Your task to perform on an android device: add a contact Image 0: 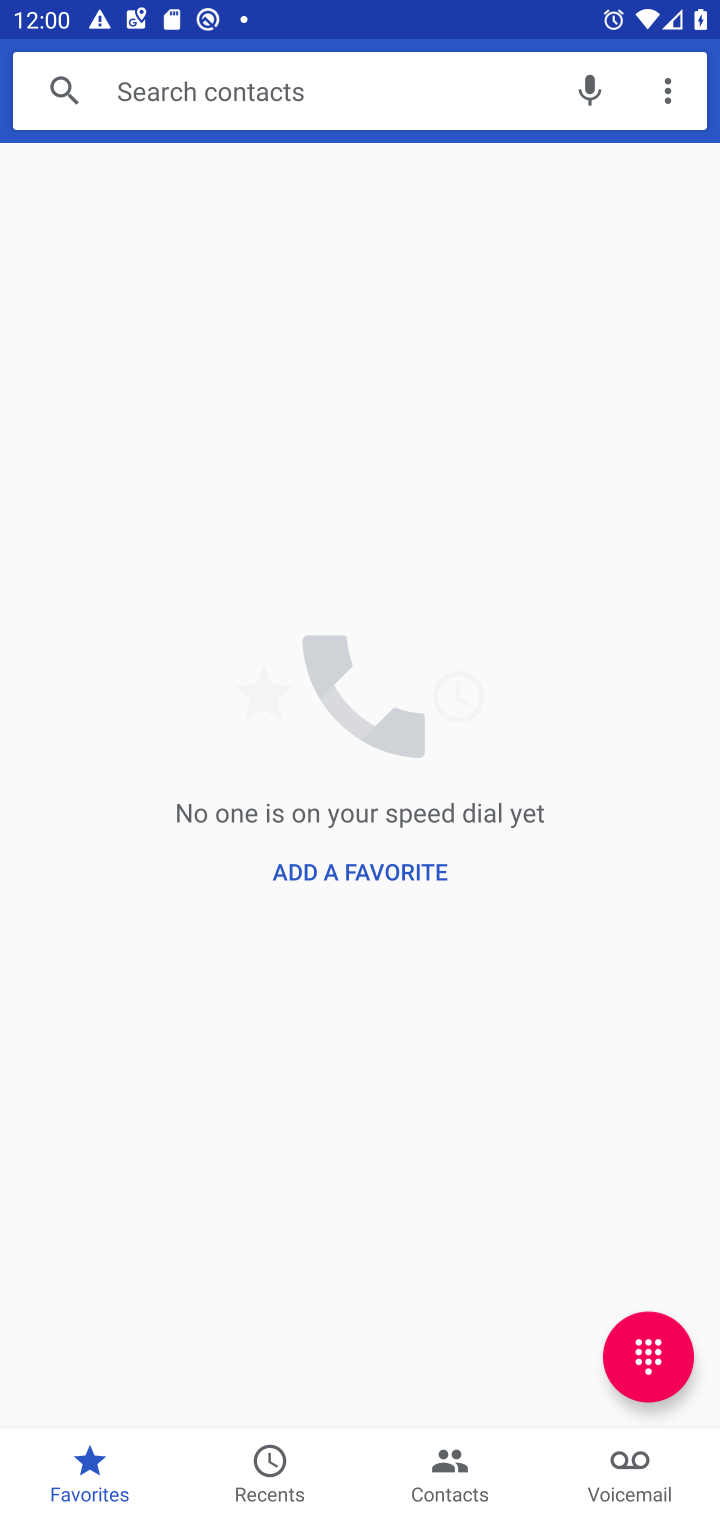
Step 0: press home button
Your task to perform on an android device: add a contact Image 1: 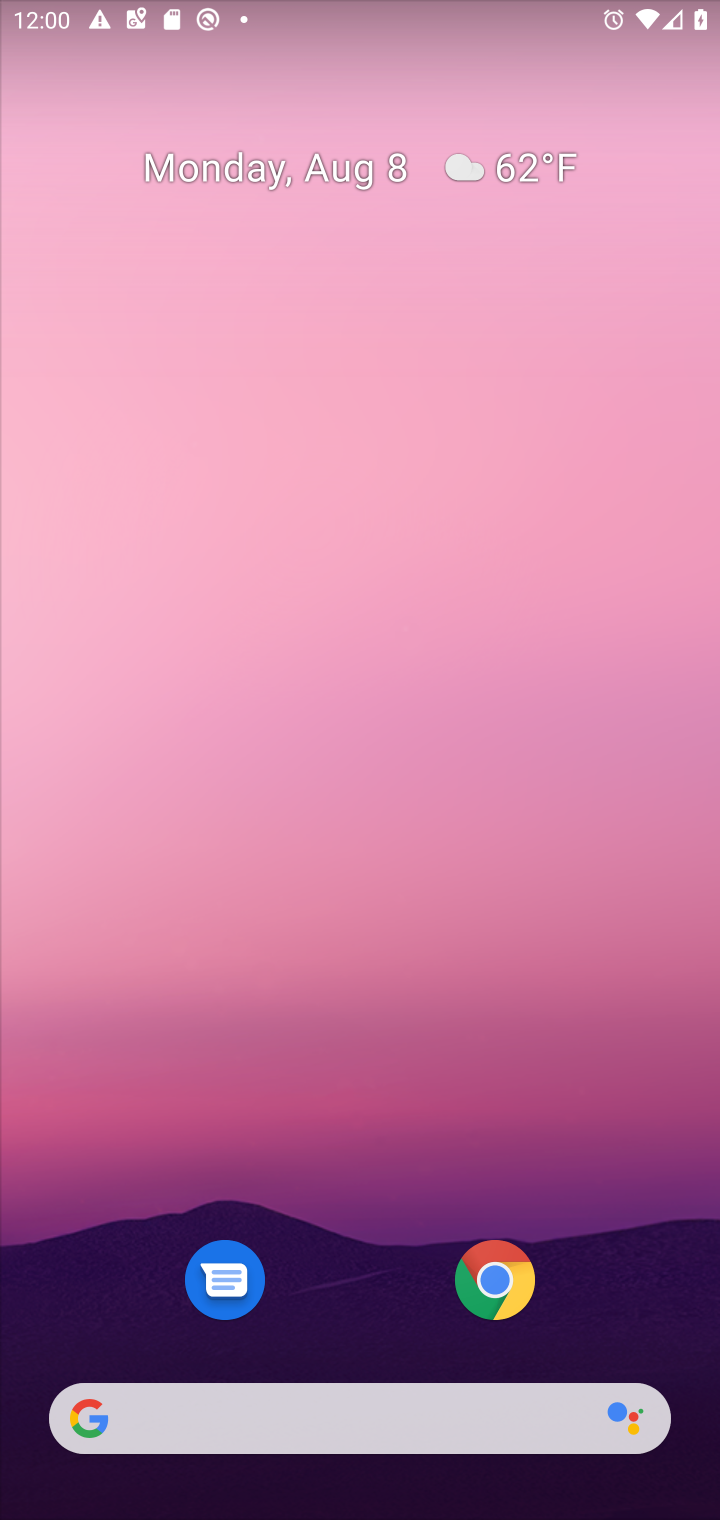
Step 1: drag from (310, 1031) to (290, 135)
Your task to perform on an android device: add a contact Image 2: 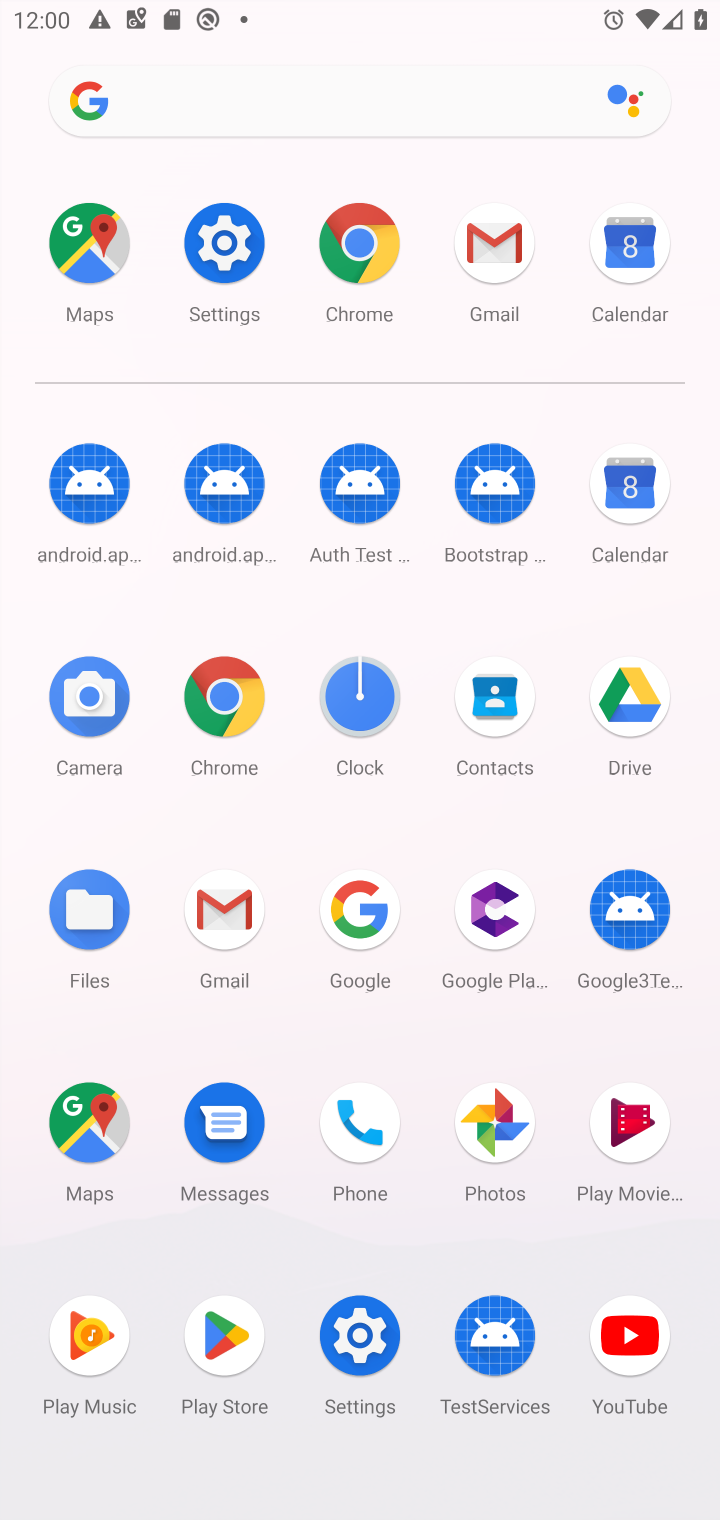
Step 2: click (487, 707)
Your task to perform on an android device: add a contact Image 3: 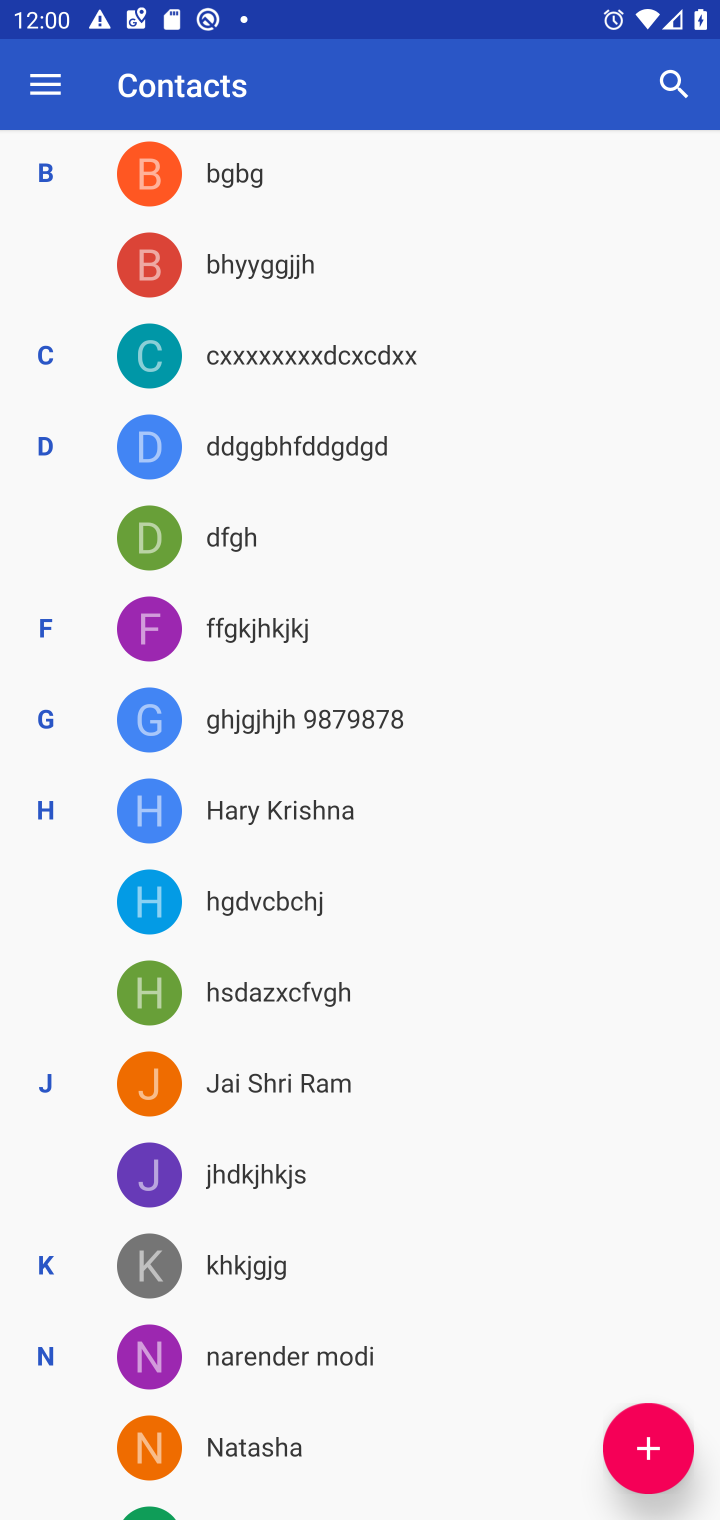
Step 3: click (649, 1440)
Your task to perform on an android device: add a contact Image 4: 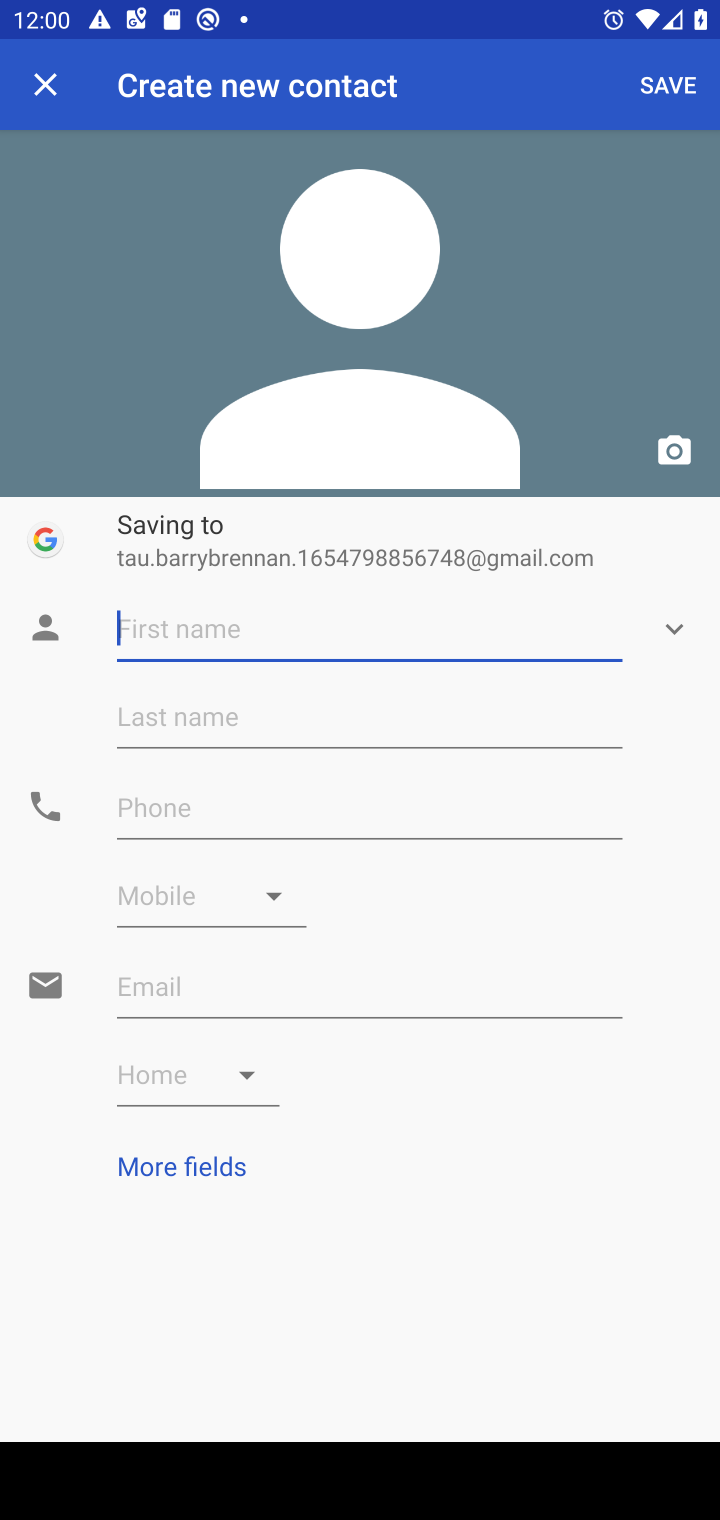
Step 4: type "878787"
Your task to perform on an android device: add a contact Image 5: 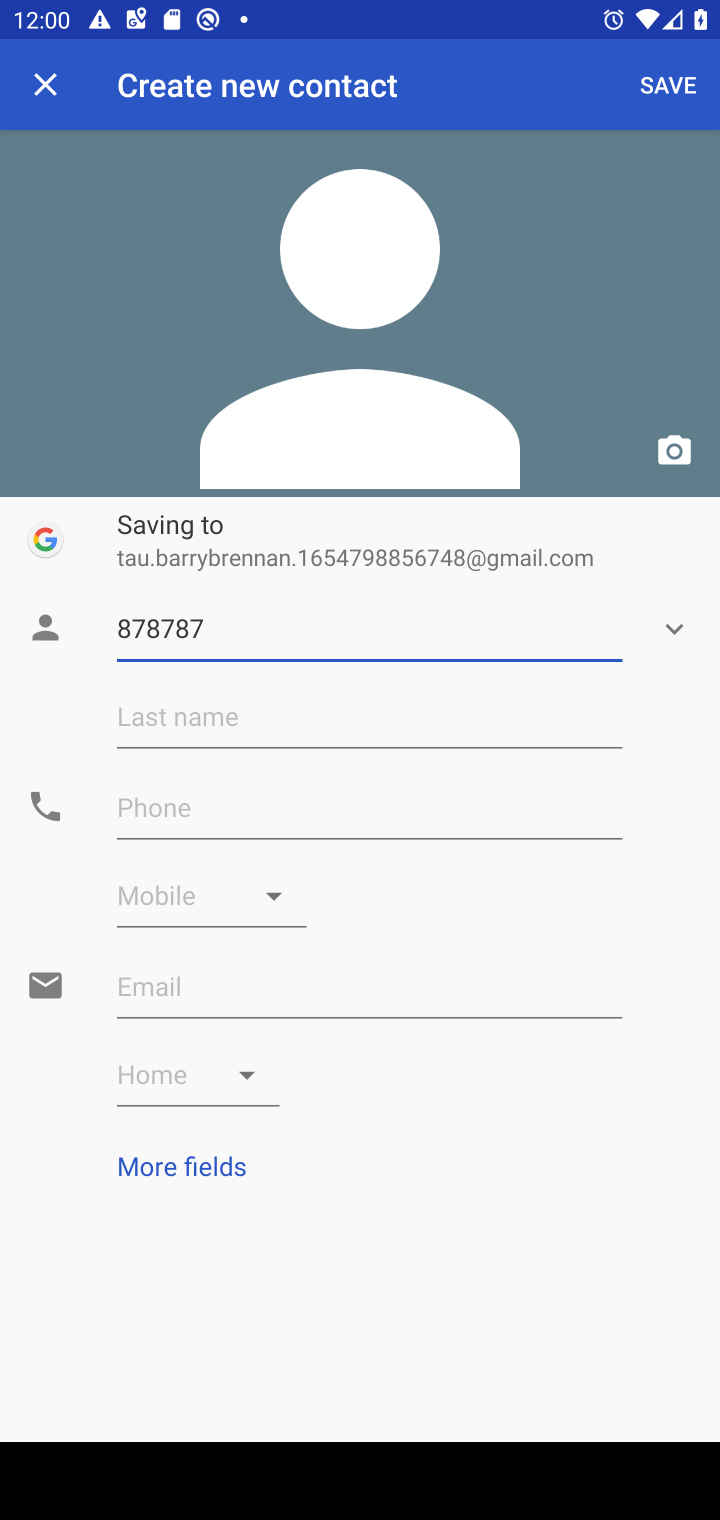
Step 5: click (201, 784)
Your task to perform on an android device: add a contact Image 6: 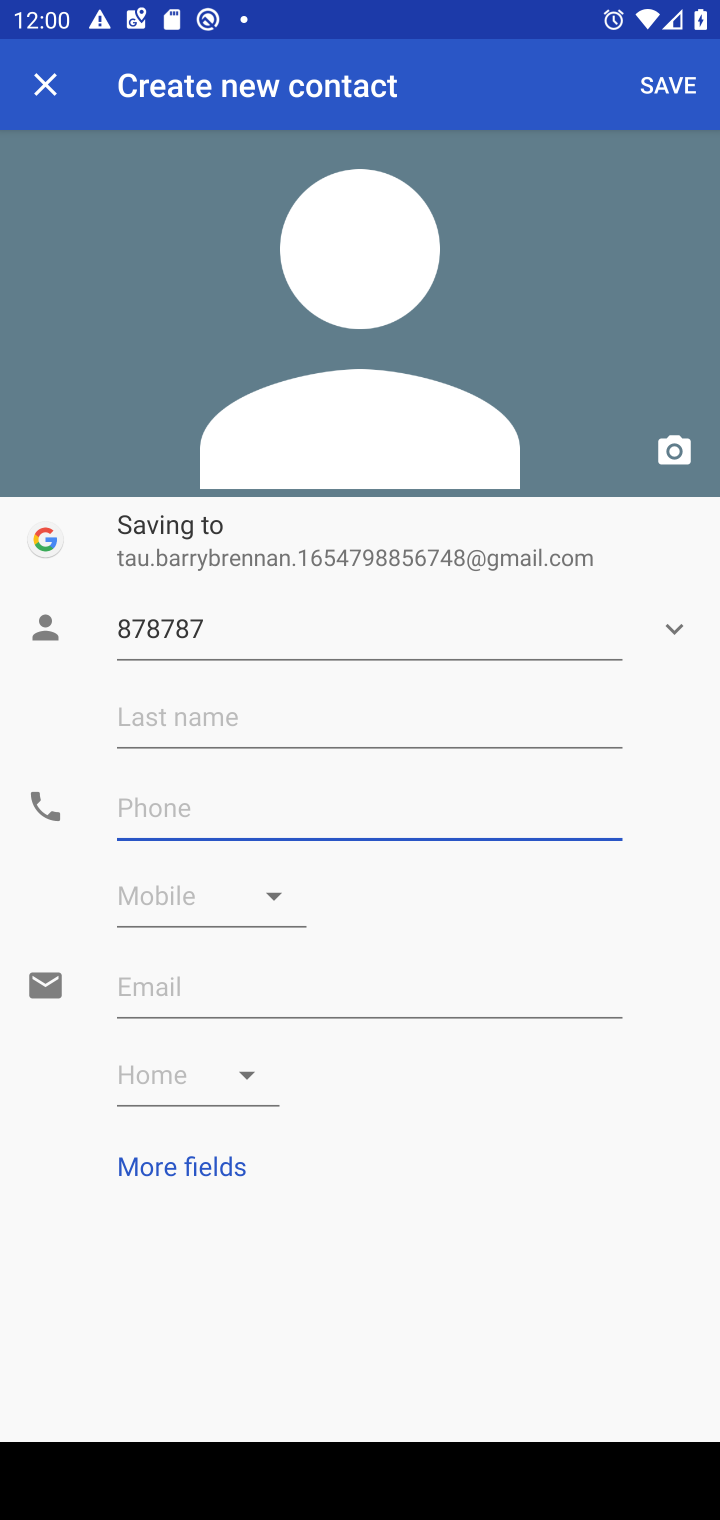
Step 6: type "7878"
Your task to perform on an android device: add a contact Image 7: 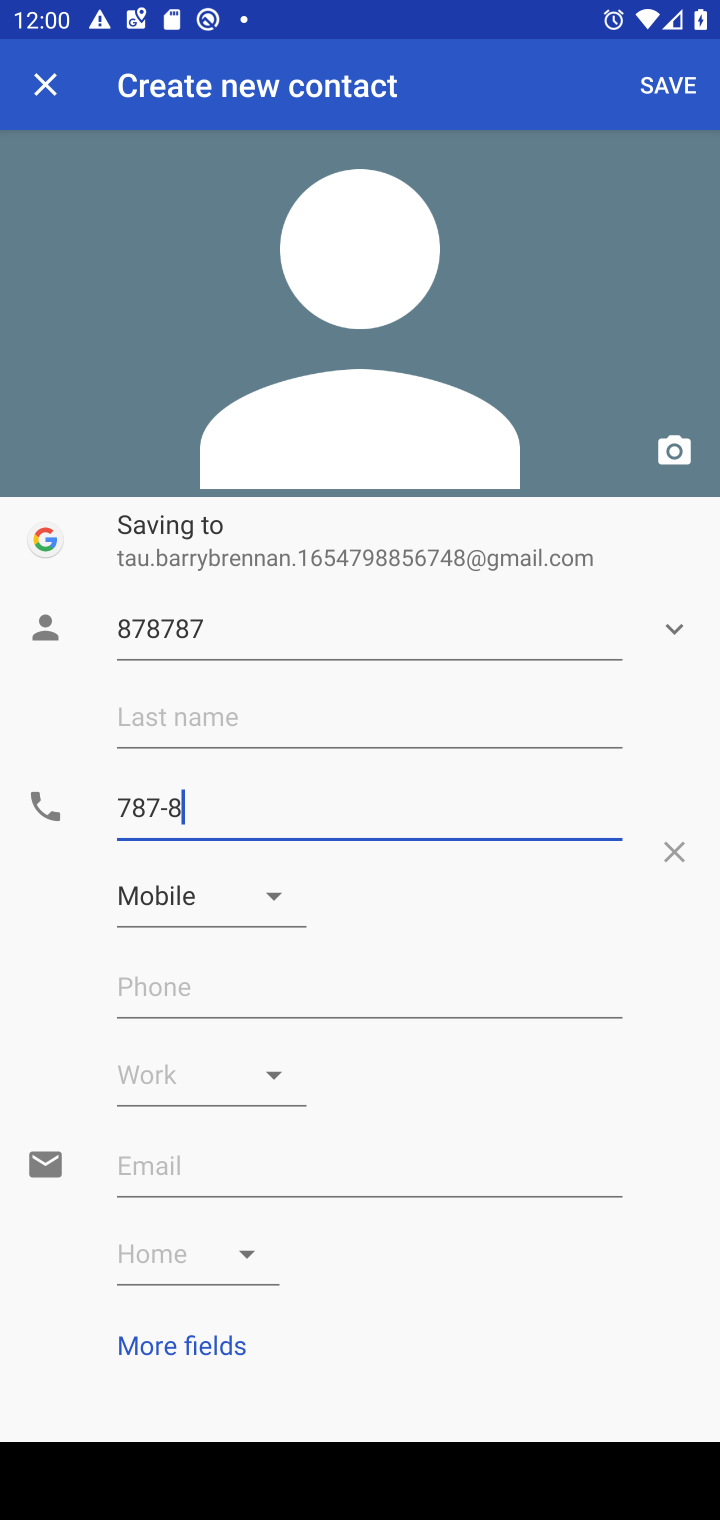
Step 7: click (651, 88)
Your task to perform on an android device: add a contact Image 8: 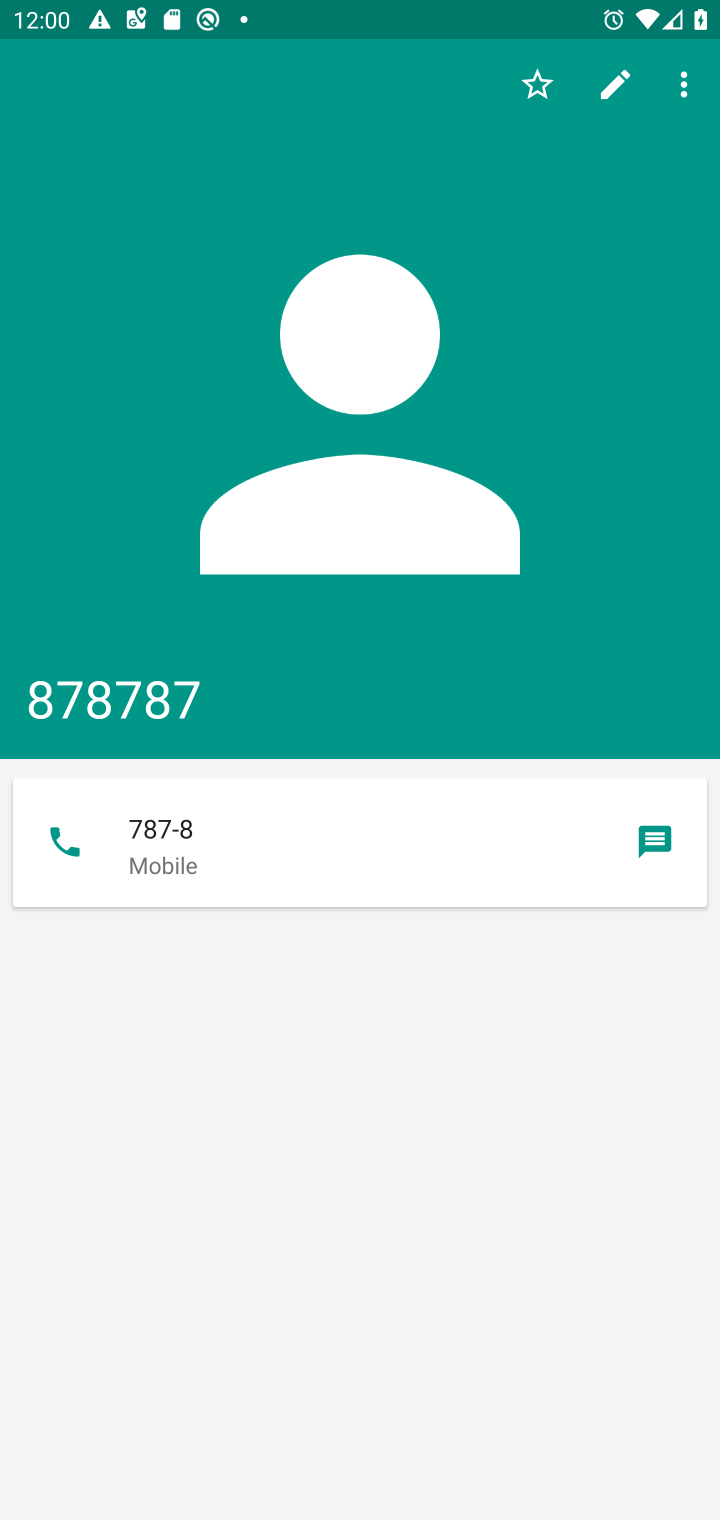
Step 8: task complete